Your task to perform on an android device: Search for the best rated mechanical keyboard on Amazon. Image 0: 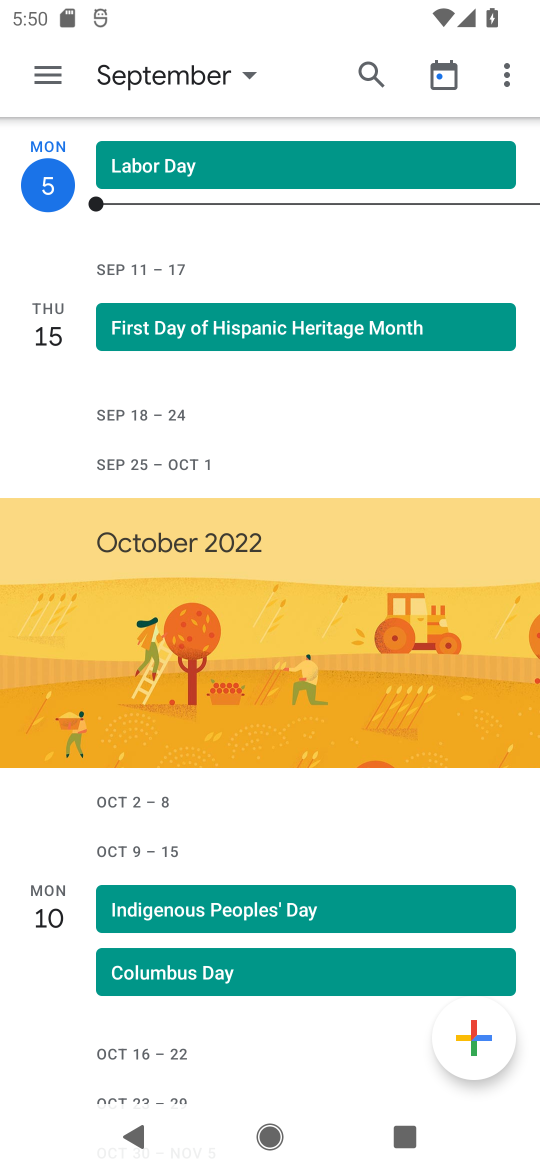
Step 0: press home button
Your task to perform on an android device: Search for the best rated mechanical keyboard on Amazon. Image 1: 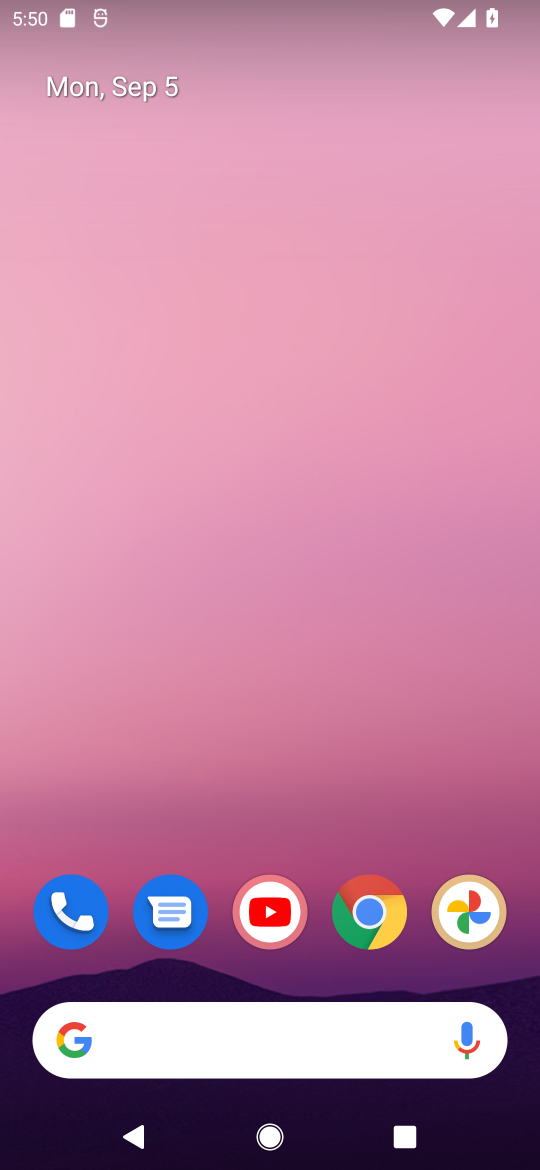
Step 1: click (371, 910)
Your task to perform on an android device: Search for the best rated mechanical keyboard on Amazon. Image 2: 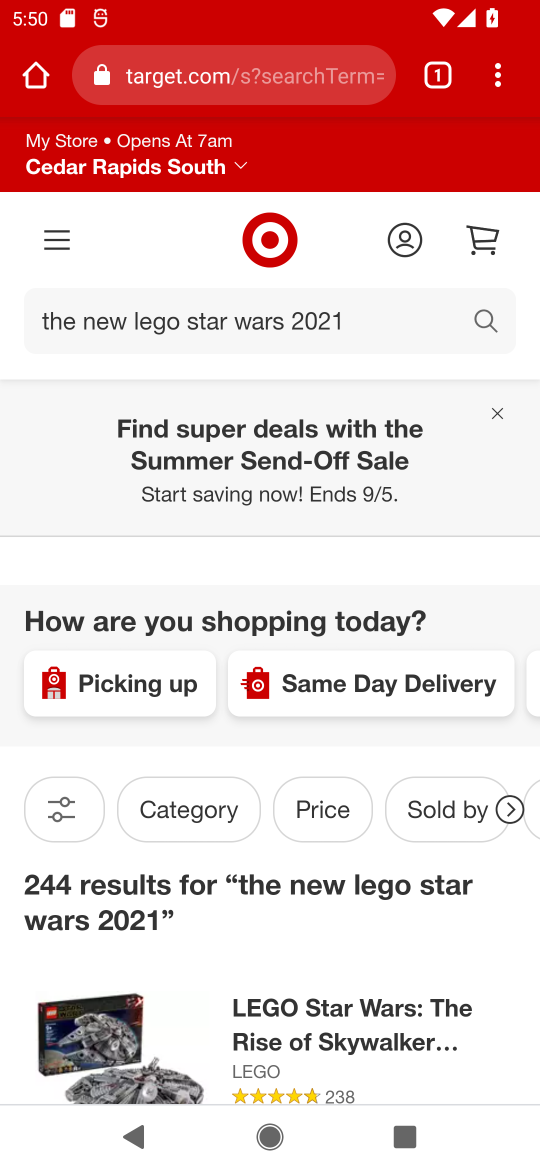
Step 2: click (240, 79)
Your task to perform on an android device: Search for the best rated mechanical keyboard on Amazon. Image 3: 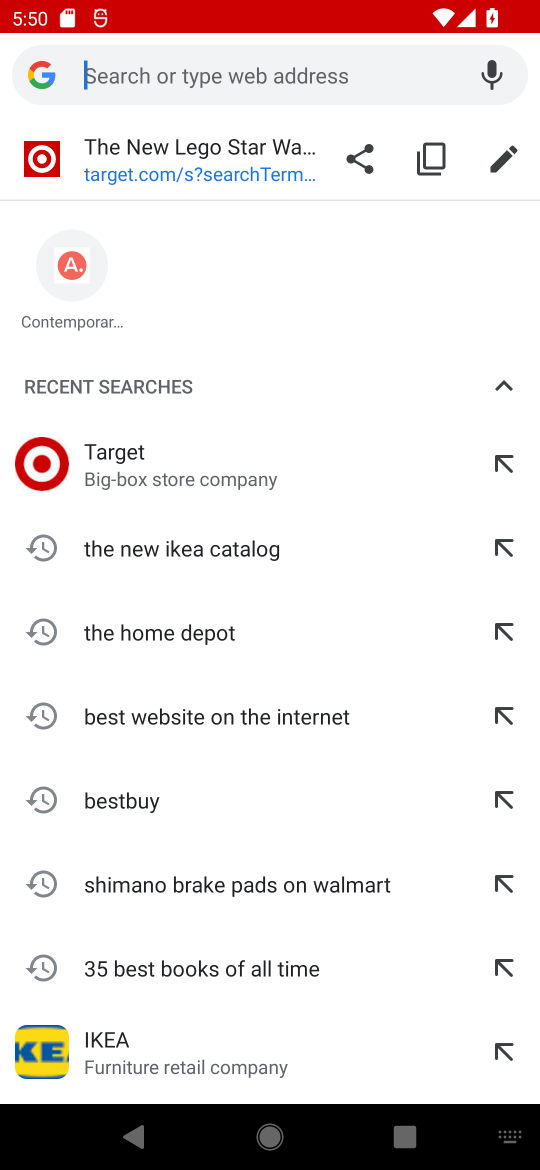
Step 3: type "Amazon"
Your task to perform on an android device: Search for the best rated mechanical keyboard on Amazon. Image 4: 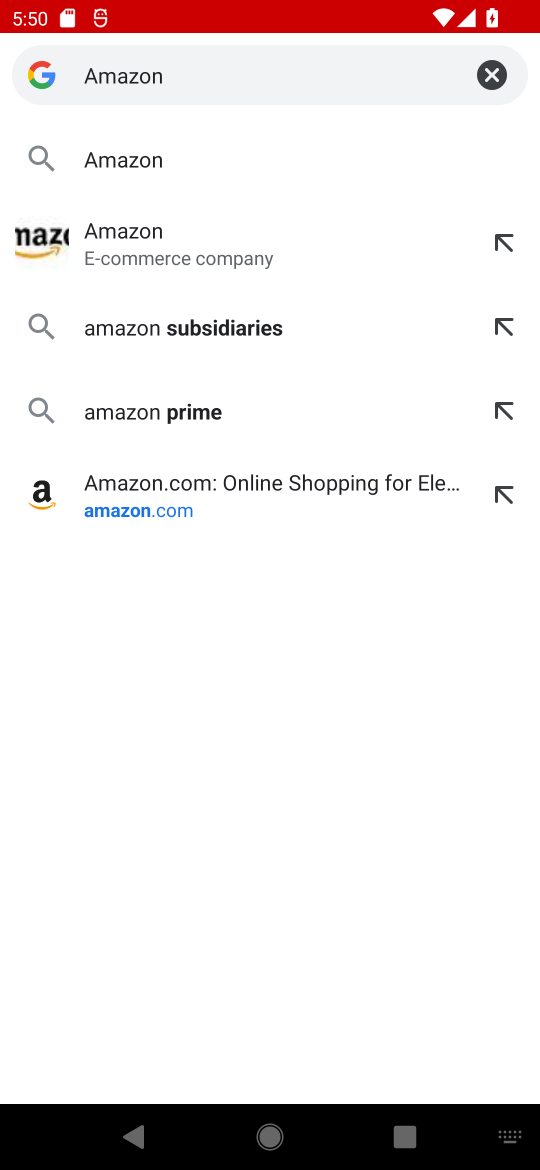
Step 4: click (166, 179)
Your task to perform on an android device: Search for the best rated mechanical keyboard on Amazon. Image 5: 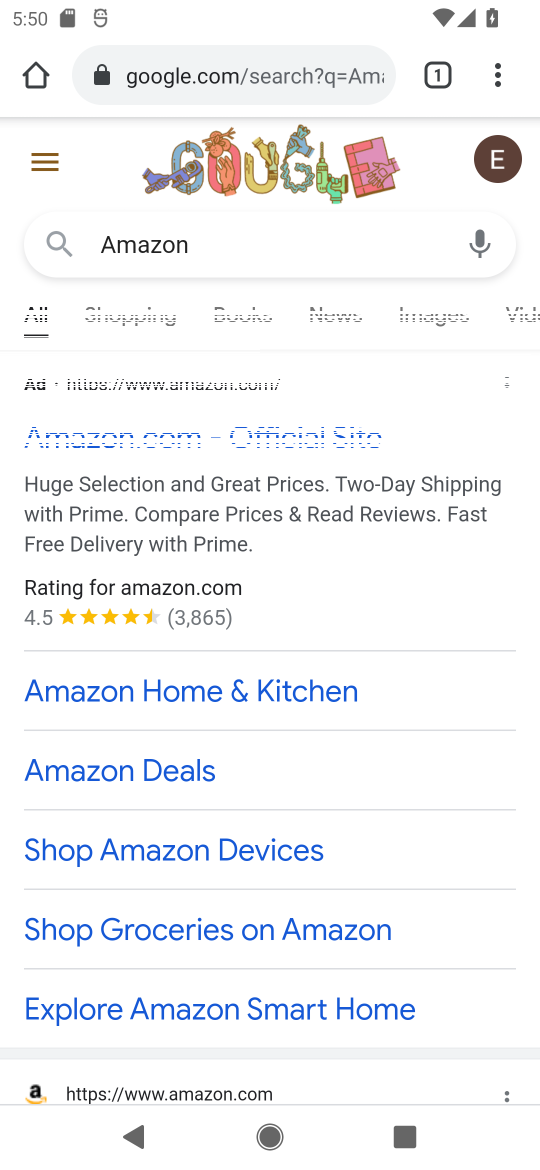
Step 5: click (176, 430)
Your task to perform on an android device: Search for the best rated mechanical keyboard on Amazon. Image 6: 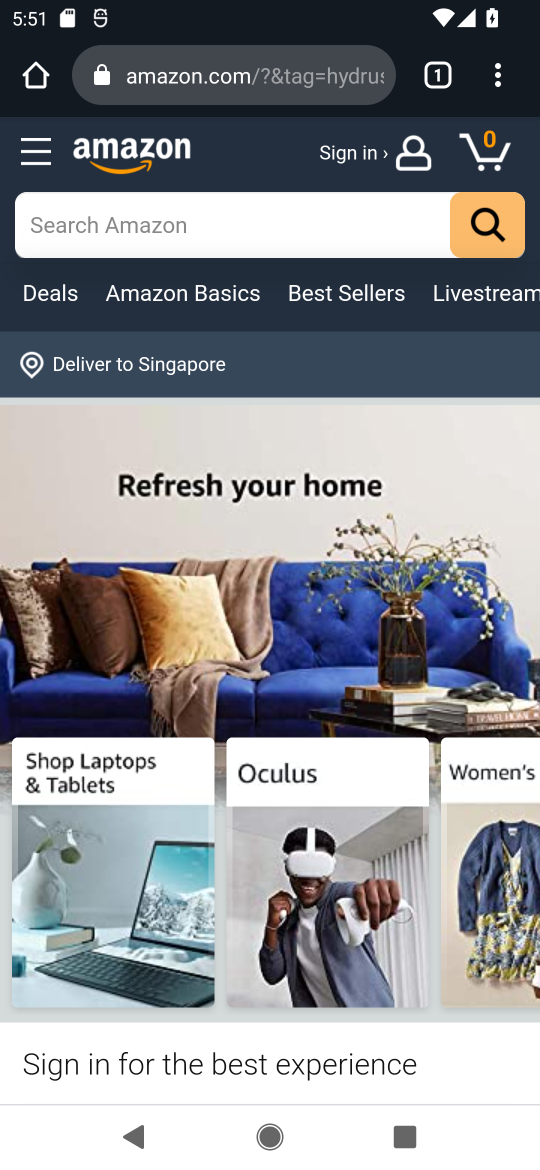
Step 6: click (223, 226)
Your task to perform on an android device: Search for the best rated mechanical keyboard on Amazon. Image 7: 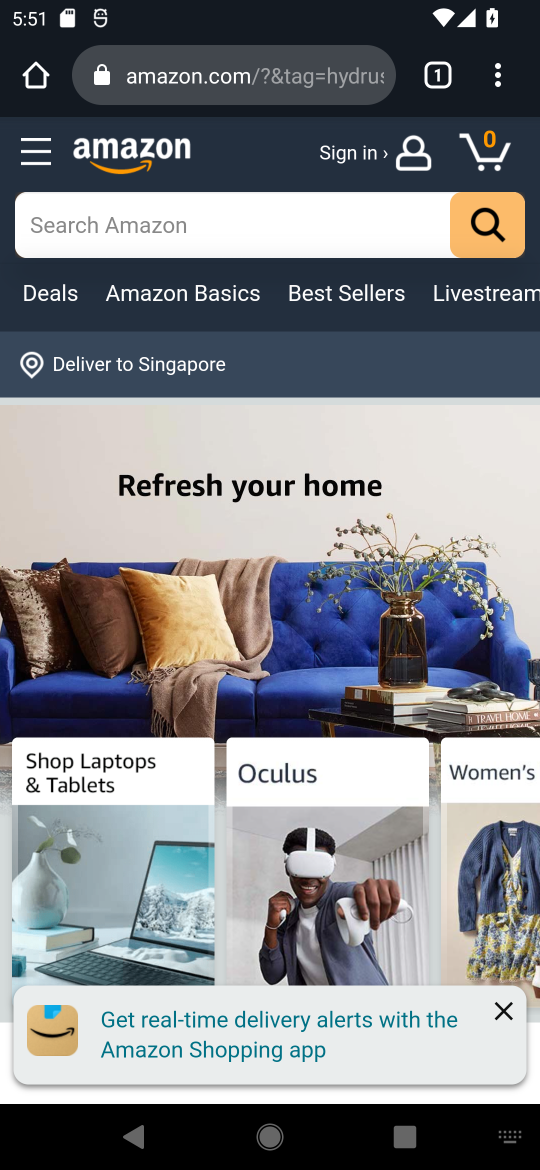
Step 7: type "the best rated mechanical keyboard"
Your task to perform on an android device: Search for the best rated mechanical keyboard on Amazon. Image 8: 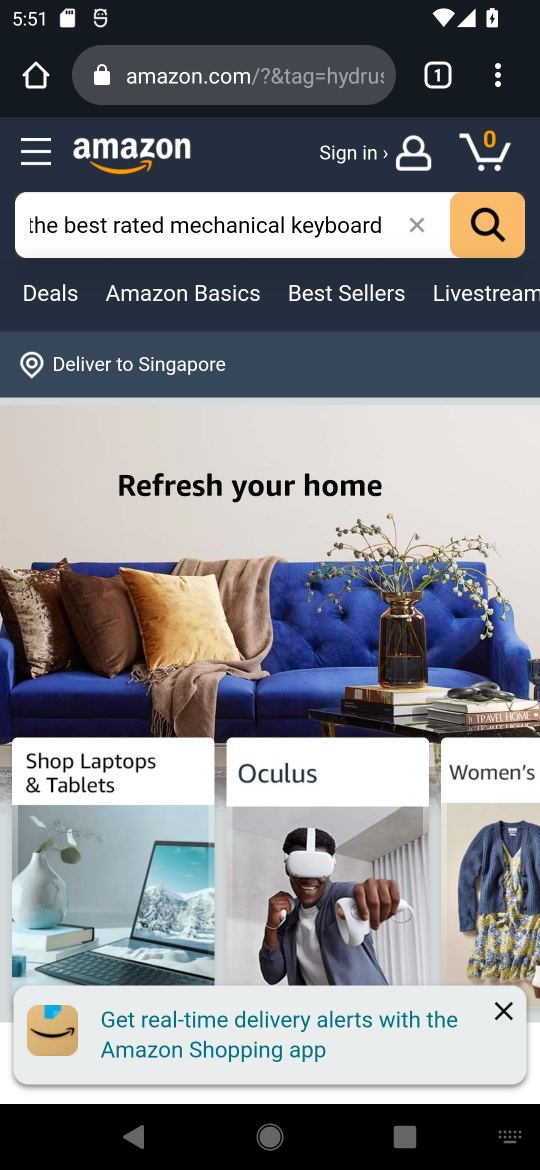
Step 8: click (493, 216)
Your task to perform on an android device: Search for the best rated mechanical keyboard on Amazon. Image 9: 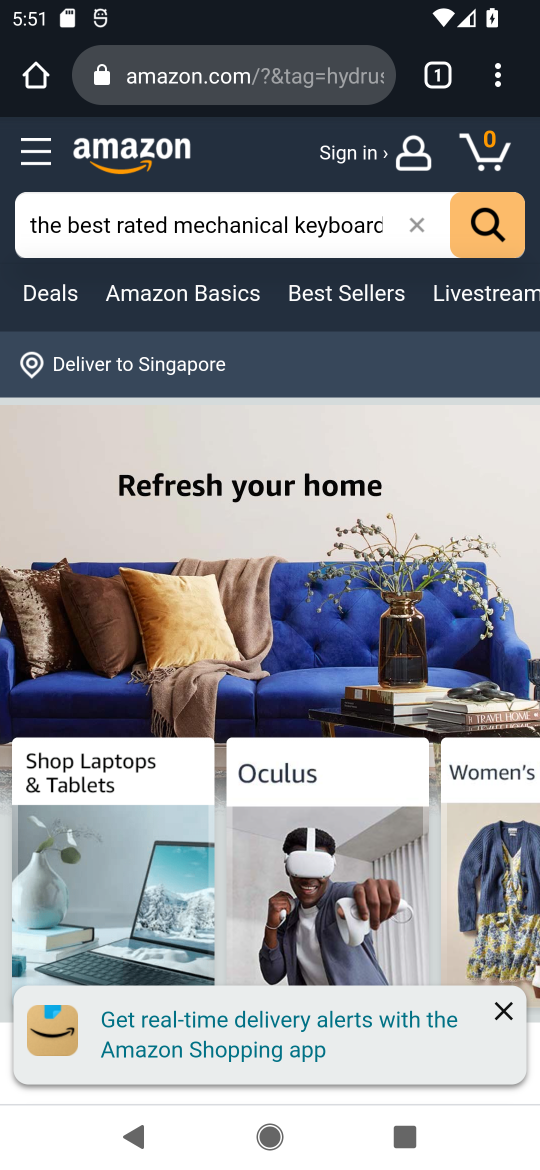
Step 9: click (478, 224)
Your task to perform on an android device: Search for the best rated mechanical keyboard on Amazon. Image 10: 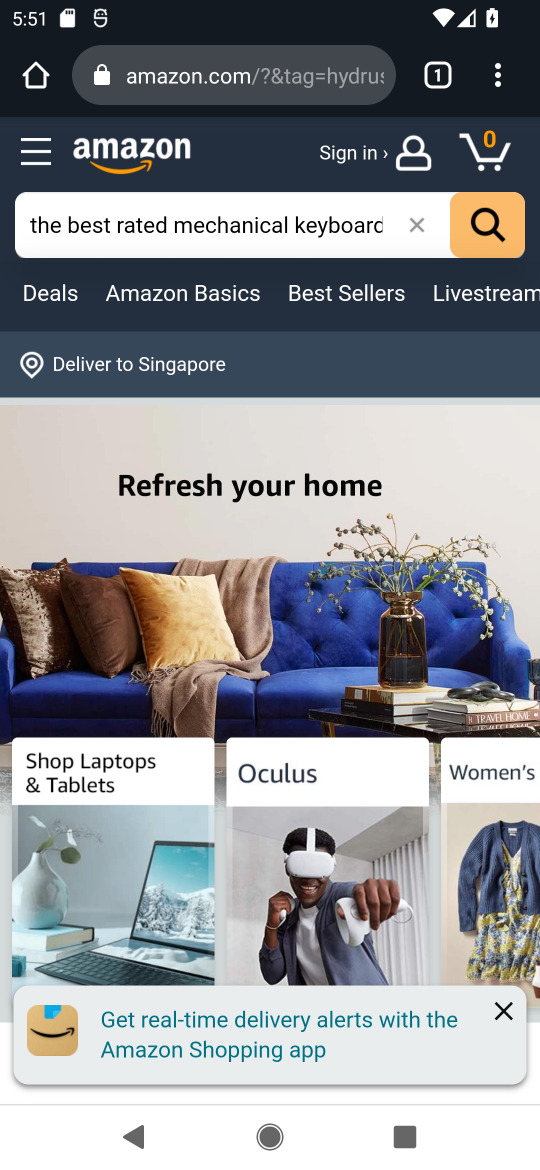
Step 10: click (478, 224)
Your task to perform on an android device: Search for the best rated mechanical keyboard on Amazon. Image 11: 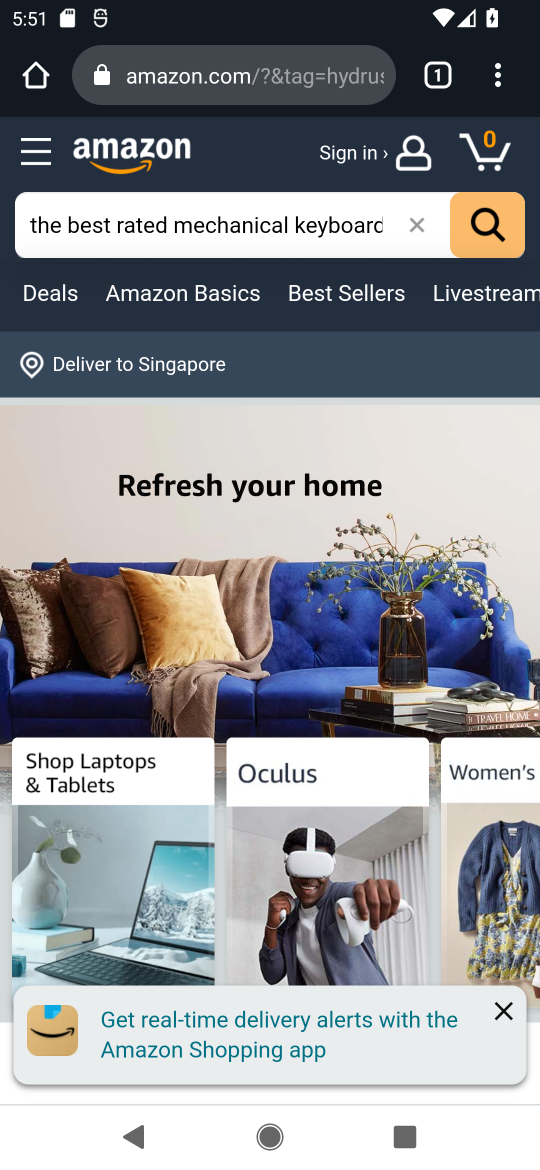
Step 11: click (485, 223)
Your task to perform on an android device: Search for the best rated mechanical keyboard on Amazon. Image 12: 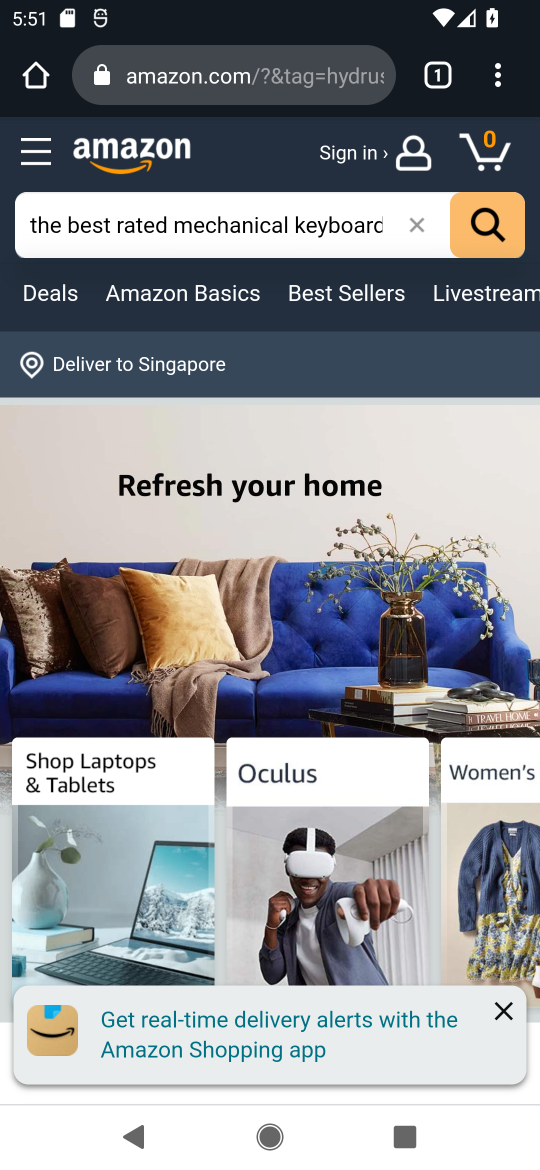
Step 12: click (485, 223)
Your task to perform on an android device: Search for the best rated mechanical keyboard on Amazon. Image 13: 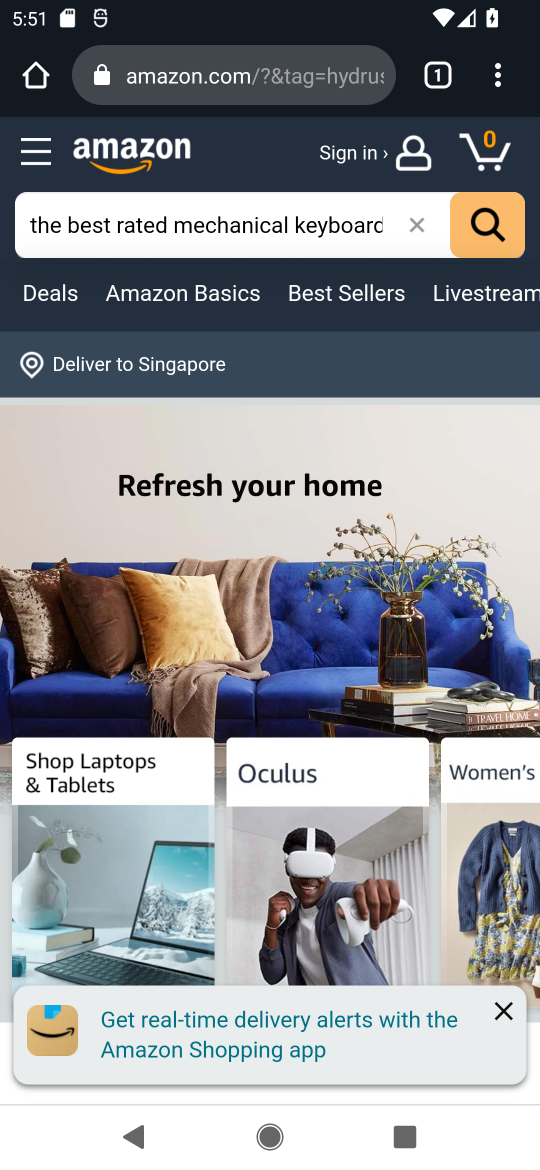
Step 13: click (482, 220)
Your task to perform on an android device: Search for the best rated mechanical keyboard on Amazon. Image 14: 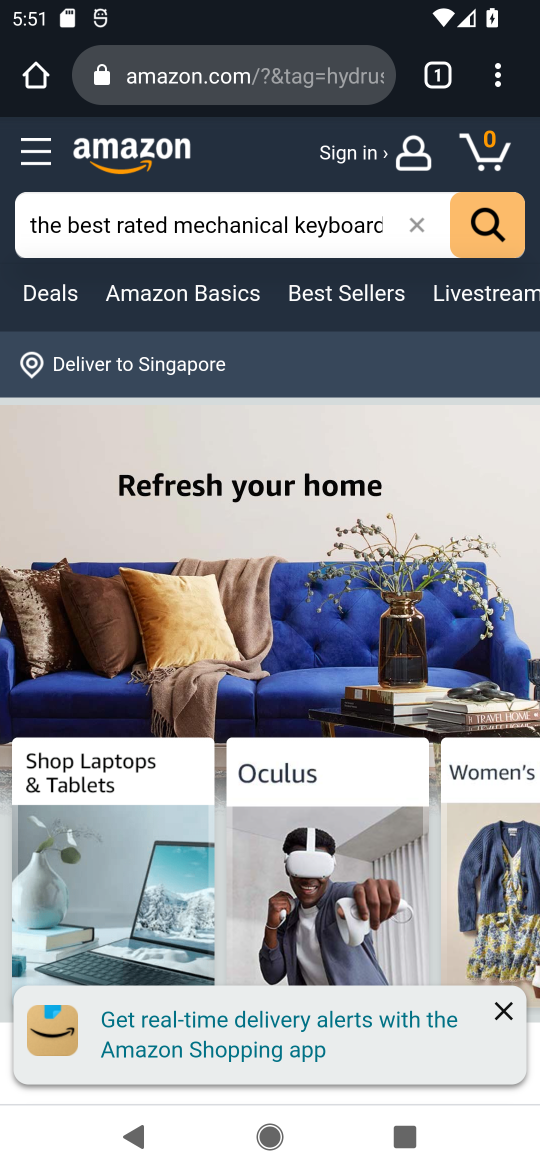
Step 14: click (482, 220)
Your task to perform on an android device: Search for the best rated mechanical keyboard on Amazon. Image 15: 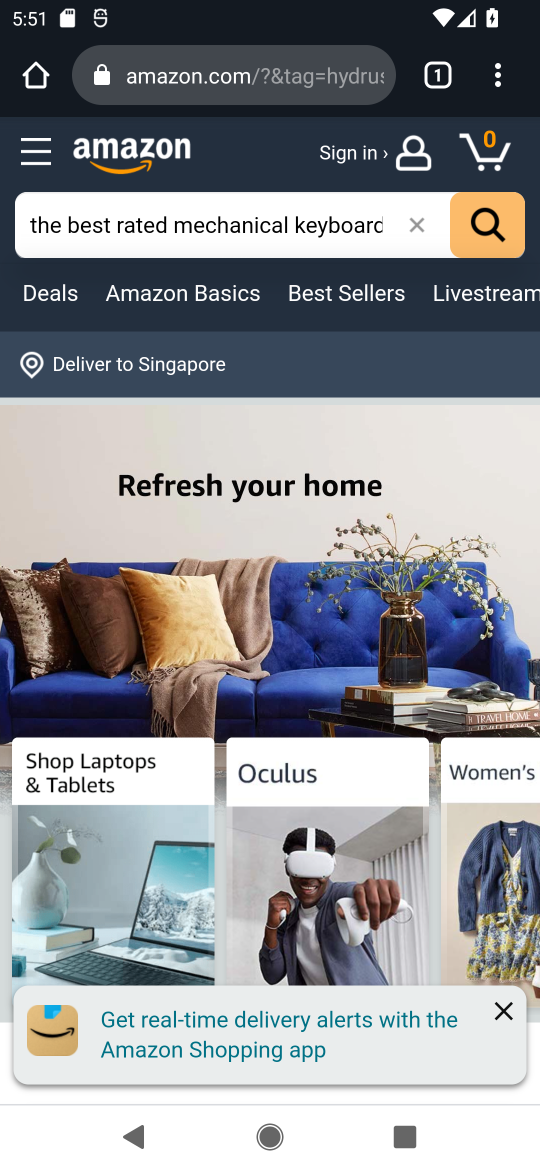
Step 15: click (482, 223)
Your task to perform on an android device: Search for the best rated mechanical keyboard on Amazon. Image 16: 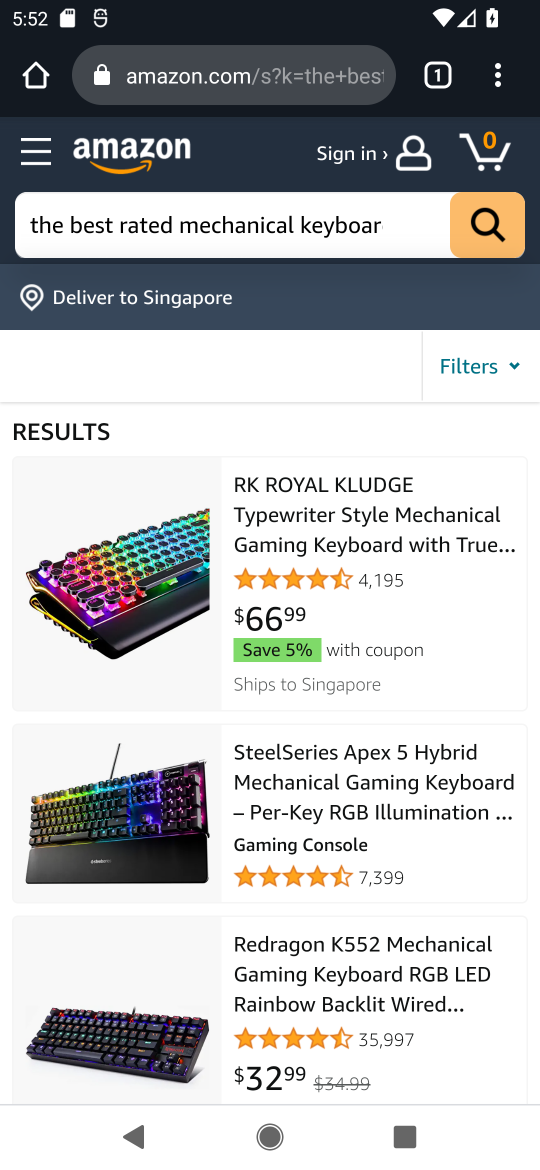
Step 16: task complete